Your task to perform on an android device: Toggle the flashlight Image 0: 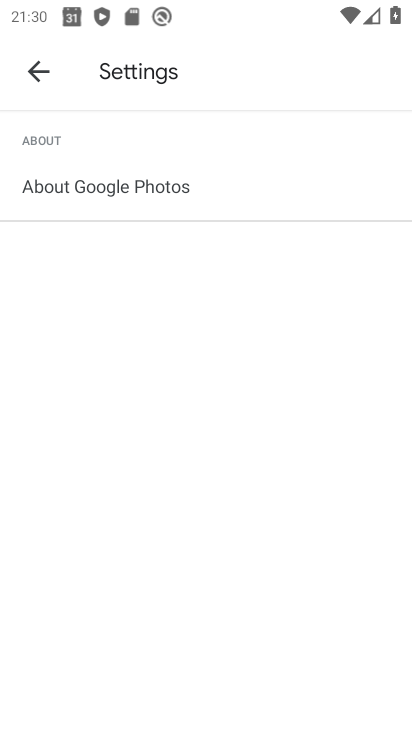
Step 0: press home button
Your task to perform on an android device: Toggle the flashlight Image 1: 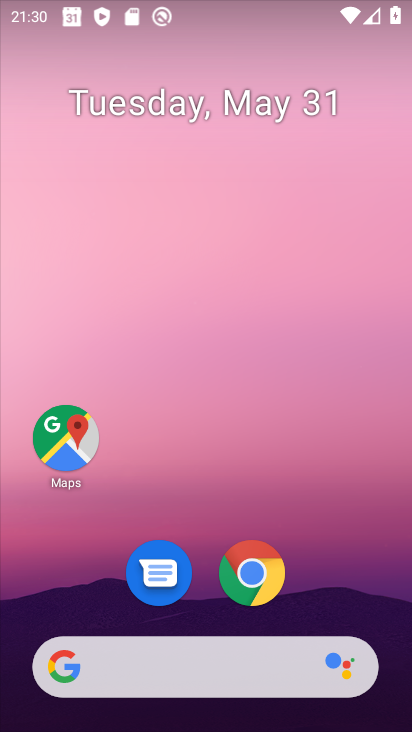
Step 1: drag from (345, 527) to (190, 146)
Your task to perform on an android device: Toggle the flashlight Image 2: 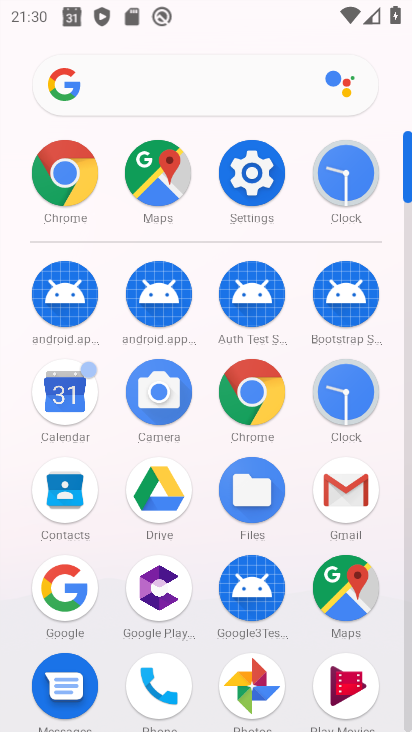
Step 2: click (263, 164)
Your task to perform on an android device: Toggle the flashlight Image 3: 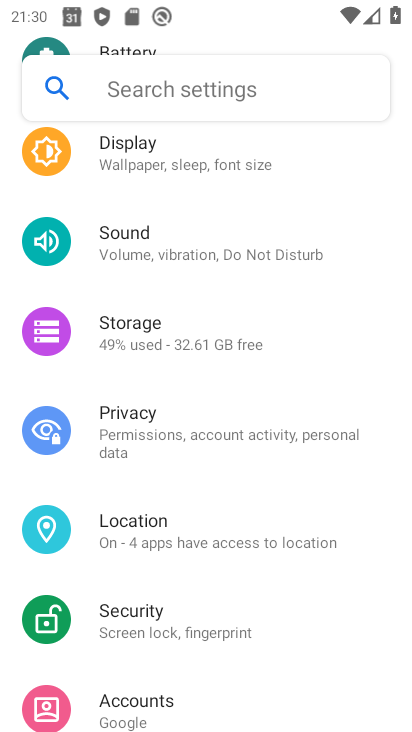
Step 3: click (228, 163)
Your task to perform on an android device: Toggle the flashlight Image 4: 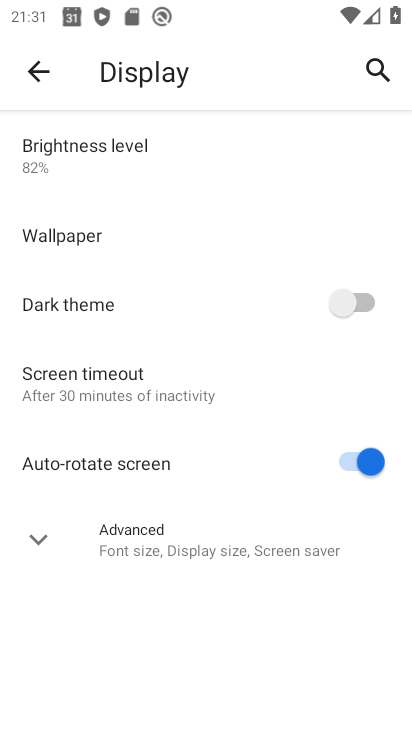
Step 4: task complete